Your task to perform on an android device: Go to calendar. Show me events next week Image 0: 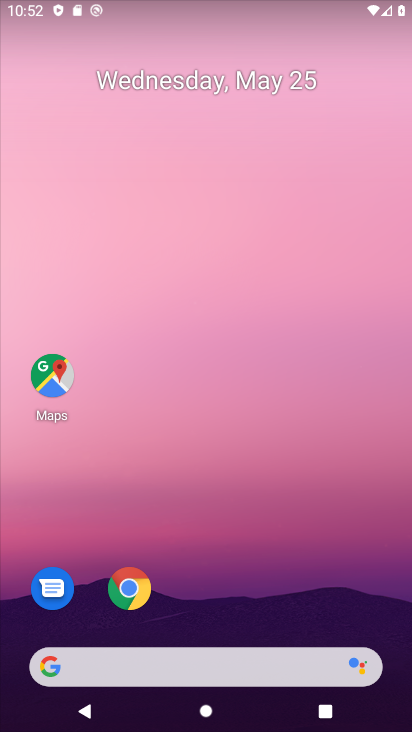
Step 0: drag from (239, 581) to (131, 95)
Your task to perform on an android device: Go to calendar. Show me events next week Image 1: 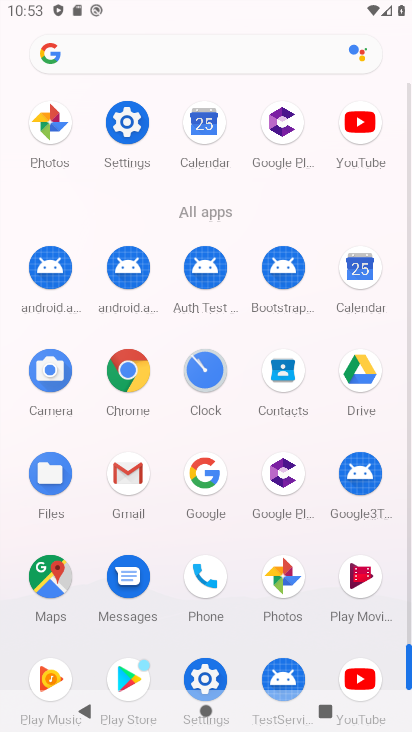
Step 1: click (206, 124)
Your task to perform on an android device: Go to calendar. Show me events next week Image 2: 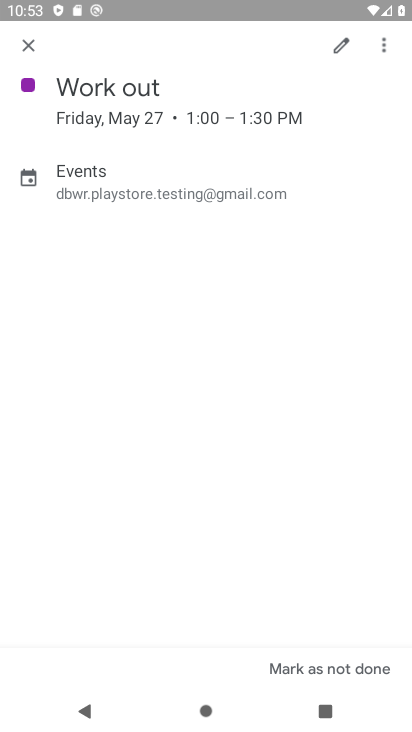
Step 2: click (25, 46)
Your task to perform on an android device: Go to calendar. Show me events next week Image 3: 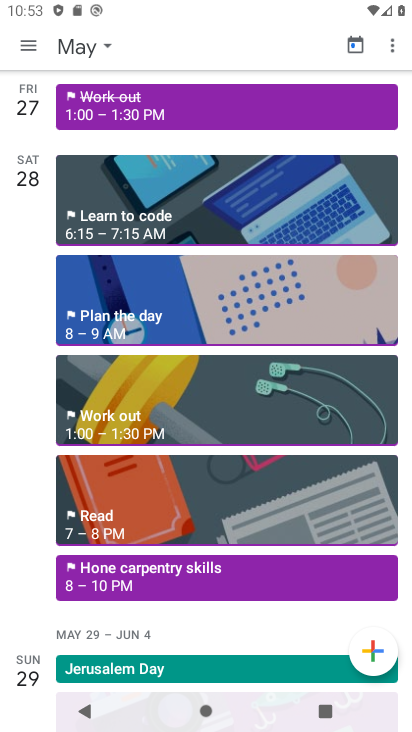
Step 3: click (358, 44)
Your task to perform on an android device: Go to calendar. Show me events next week Image 4: 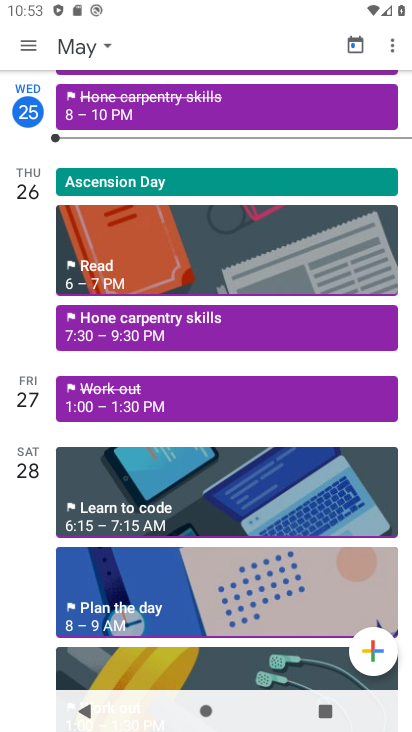
Step 4: click (103, 45)
Your task to perform on an android device: Go to calendar. Show me events next week Image 5: 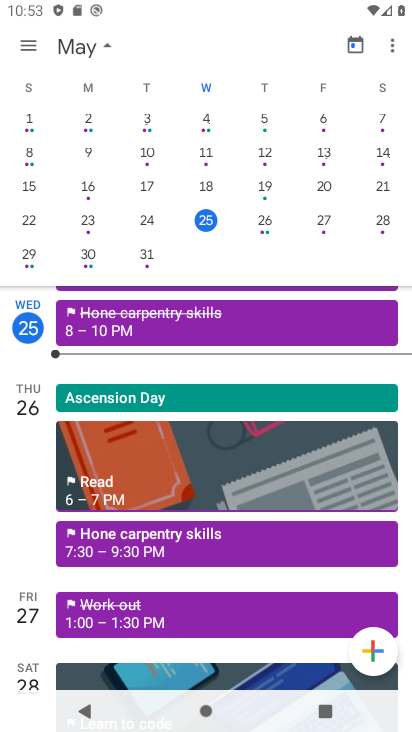
Step 5: click (88, 257)
Your task to perform on an android device: Go to calendar. Show me events next week Image 6: 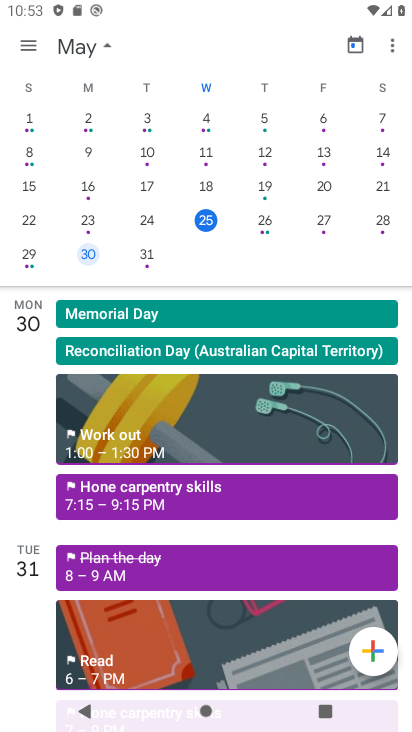
Step 6: click (35, 43)
Your task to perform on an android device: Go to calendar. Show me events next week Image 7: 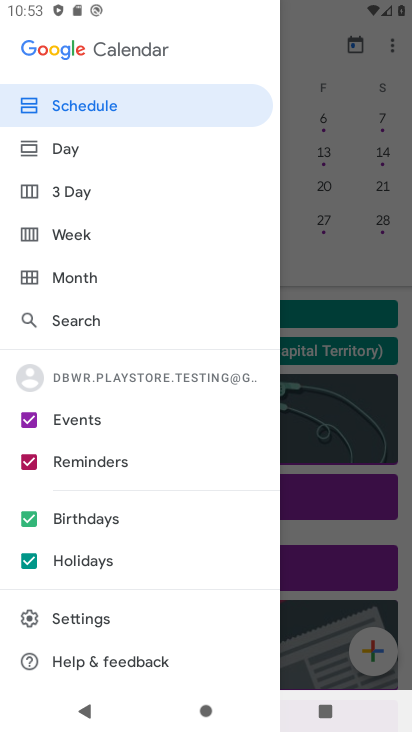
Step 7: click (88, 232)
Your task to perform on an android device: Go to calendar. Show me events next week Image 8: 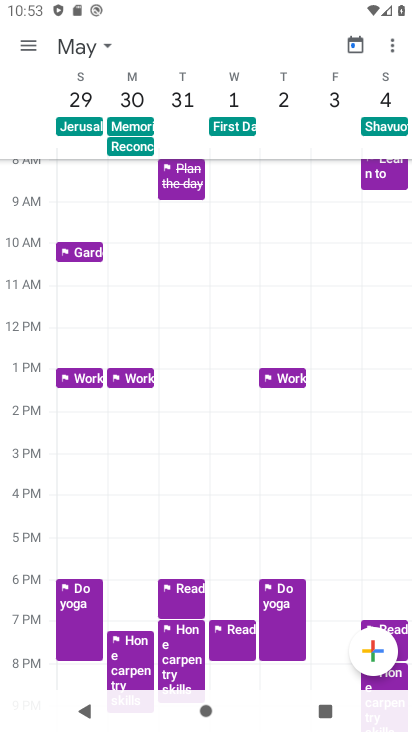
Step 8: task complete